Your task to perform on an android device: See recent photos Image 0: 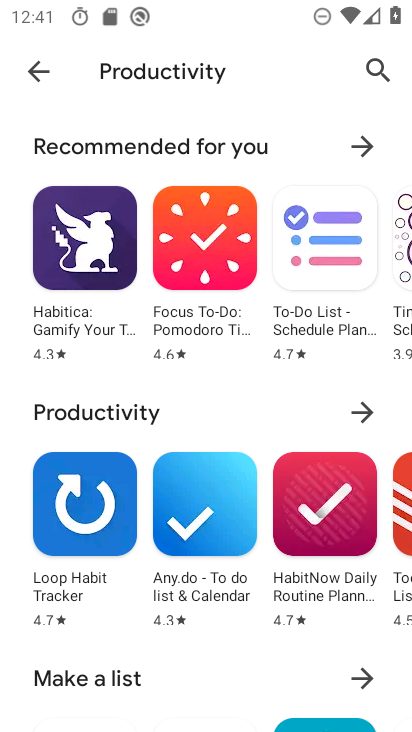
Step 0: press home button
Your task to perform on an android device: See recent photos Image 1: 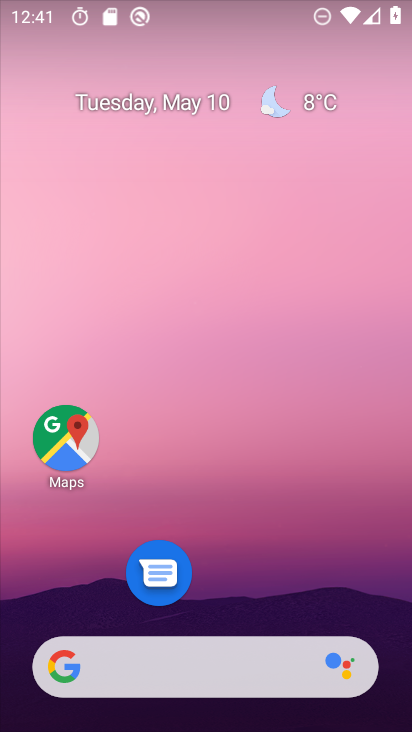
Step 1: drag from (214, 606) to (297, 71)
Your task to perform on an android device: See recent photos Image 2: 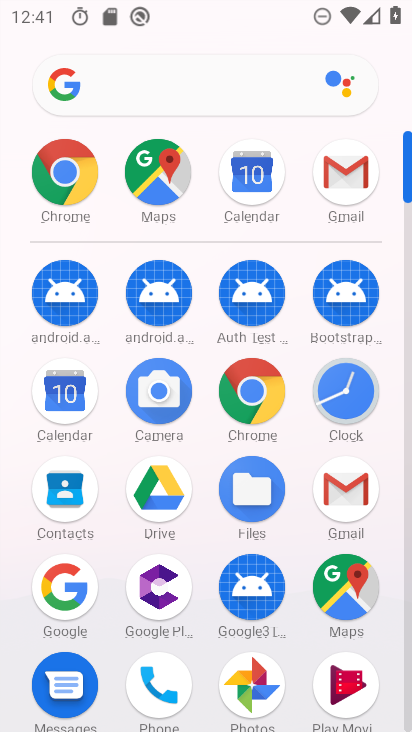
Step 2: drag from (203, 612) to (227, 317)
Your task to perform on an android device: See recent photos Image 3: 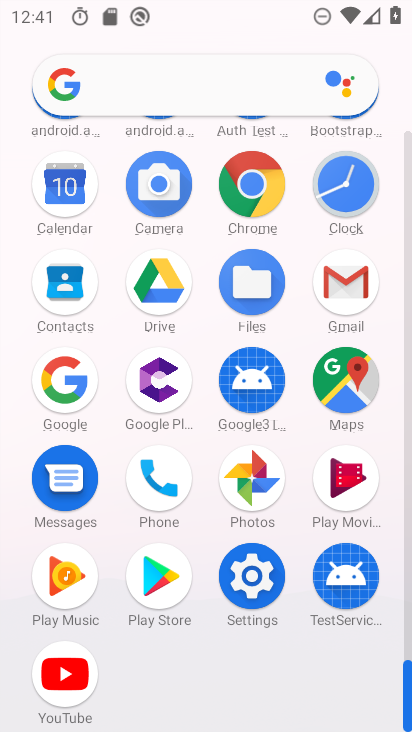
Step 3: click (274, 478)
Your task to perform on an android device: See recent photos Image 4: 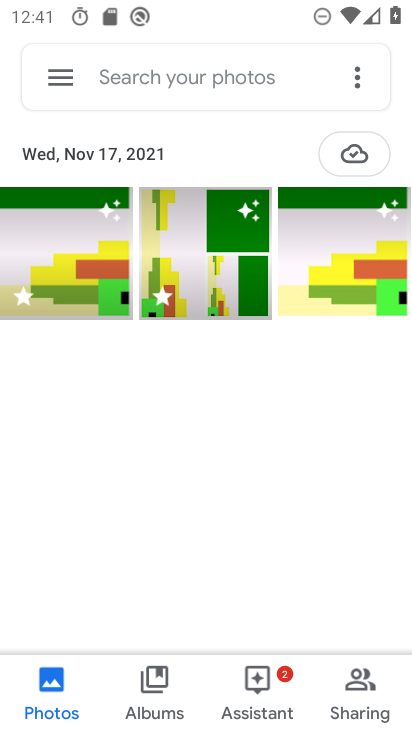
Step 4: task complete